Your task to perform on an android device: turn on bluetooth scan Image 0: 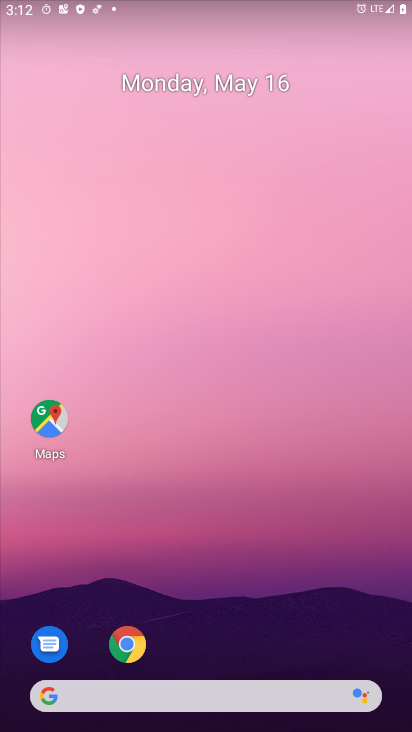
Step 0: drag from (319, 688) to (249, 161)
Your task to perform on an android device: turn on bluetooth scan Image 1: 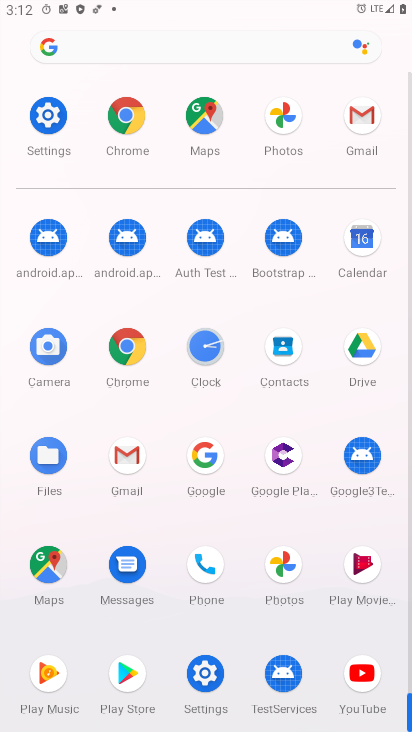
Step 1: click (65, 134)
Your task to perform on an android device: turn on bluetooth scan Image 2: 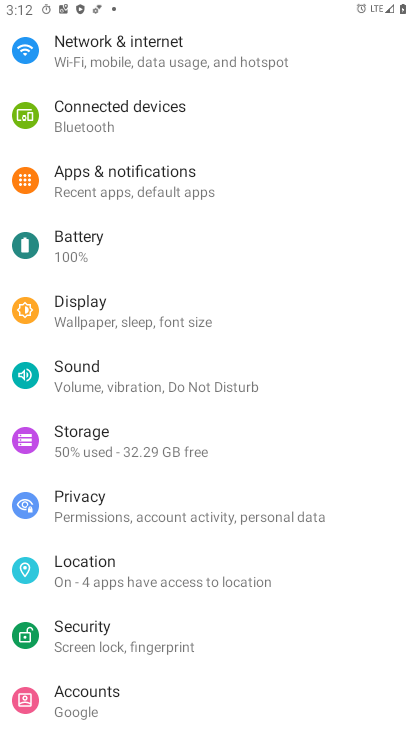
Step 2: drag from (283, 198) to (214, 672)
Your task to perform on an android device: turn on bluetooth scan Image 3: 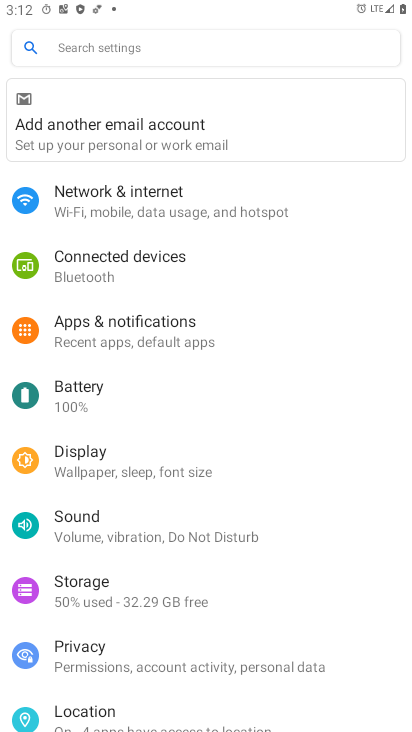
Step 3: click (224, 270)
Your task to perform on an android device: turn on bluetooth scan Image 4: 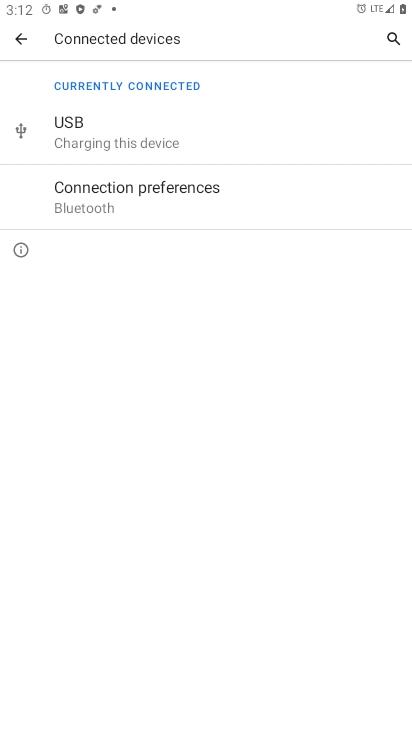
Step 4: click (246, 199)
Your task to perform on an android device: turn on bluetooth scan Image 5: 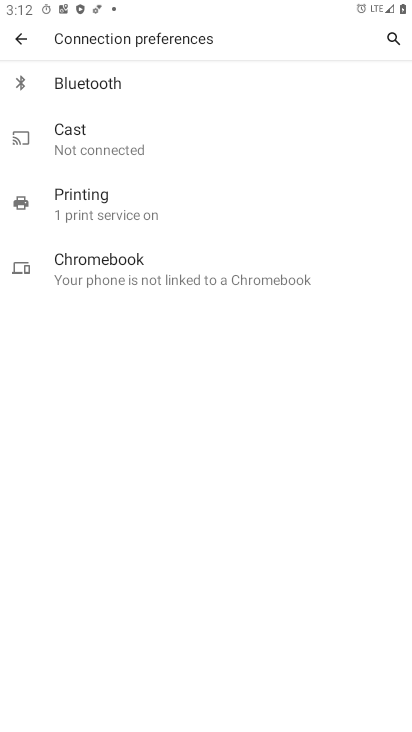
Step 5: click (214, 95)
Your task to perform on an android device: turn on bluetooth scan Image 6: 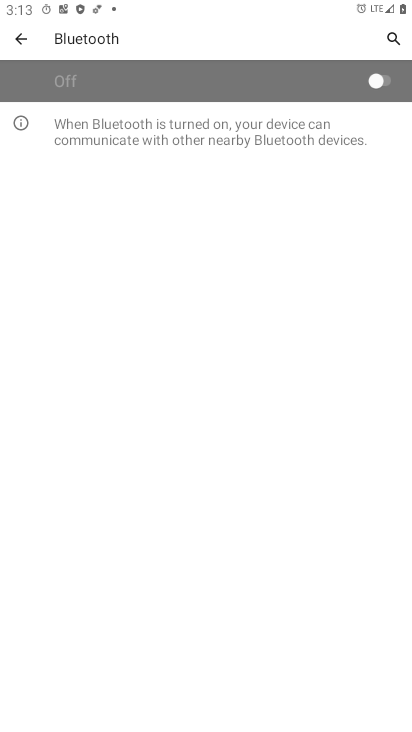
Step 6: click (374, 69)
Your task to perform on an android device: turn on bluetooth scan Image 7: 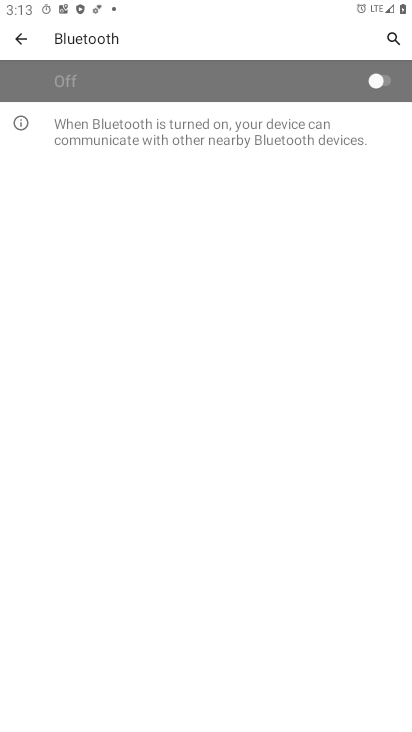
Step 7: click (374, 69)
Your task to perform on an android device: turn on bluetooth scan Image 8: 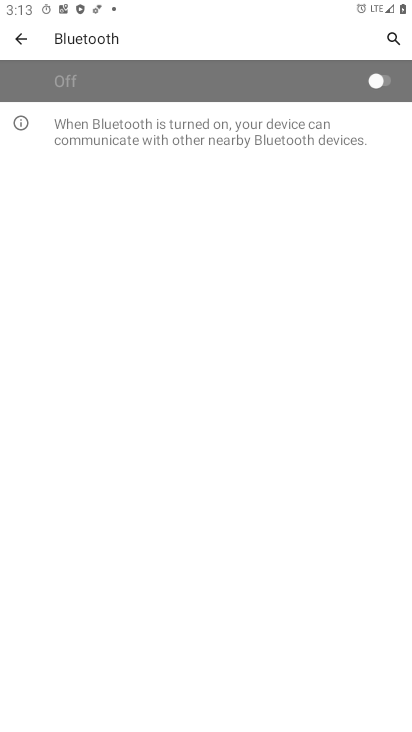
Step 8: task complete